Your task to perform on an android device: Is it going to rain today? Image 0: 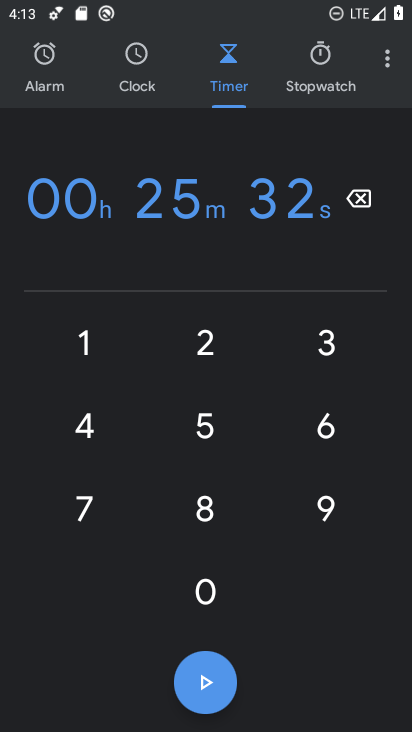
Step 0: press back button
Your task to perform on an android device: Is it going to rain today? Image 1: 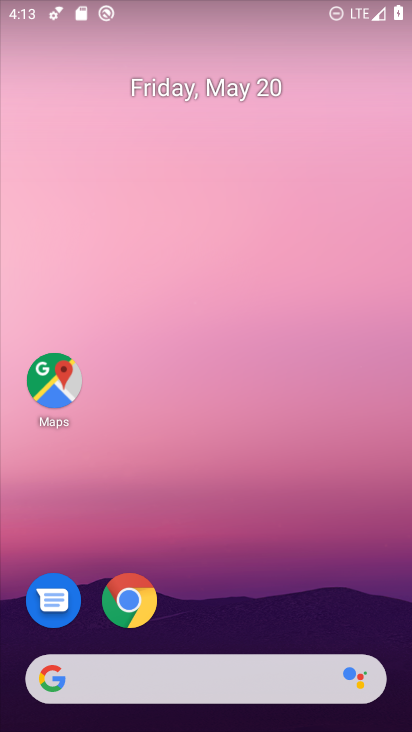
Step 1: click (153, 683)
Your task to perform on an android device: Is it going to rain today? Image 2: 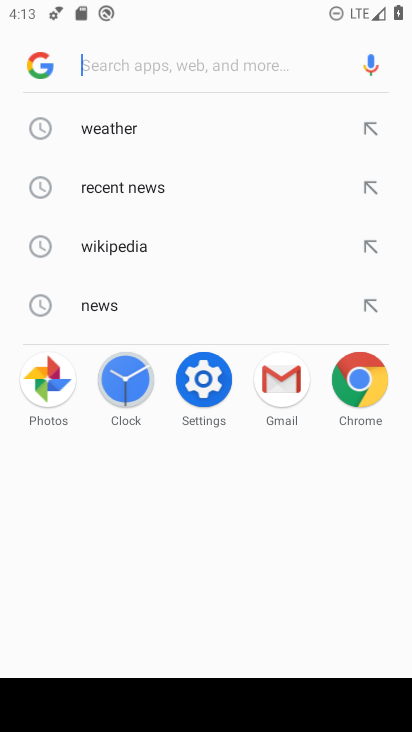
Step 2: click (157, 129)
Your task to perform on an android device: Is it going to rain today? Image 3: 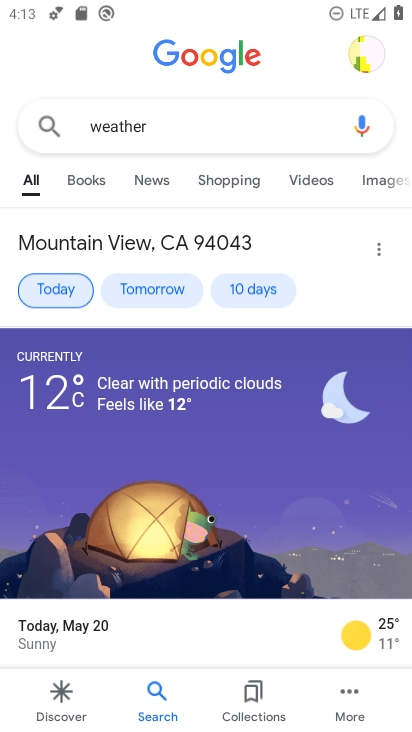
Step 3: task complete